Your task to perform on an android device: What's the weather going to be tomorrow? Image 0: 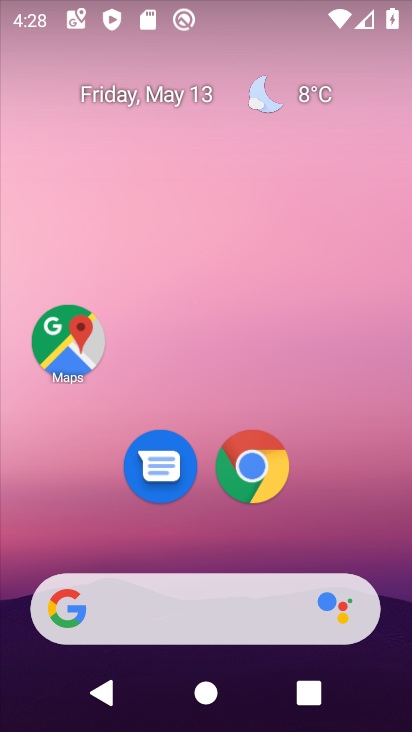
Step 0: click (299, 89)
Your task to perform on an android device: What's the weather going to be tomorrow? Image 1: 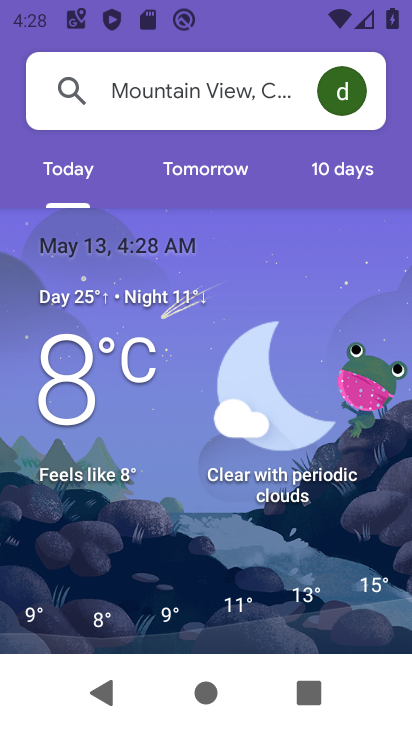
Step 1: click (202, 163)
Your task to perform on an android device: What's the weather going to be tomorrow? Image 2: 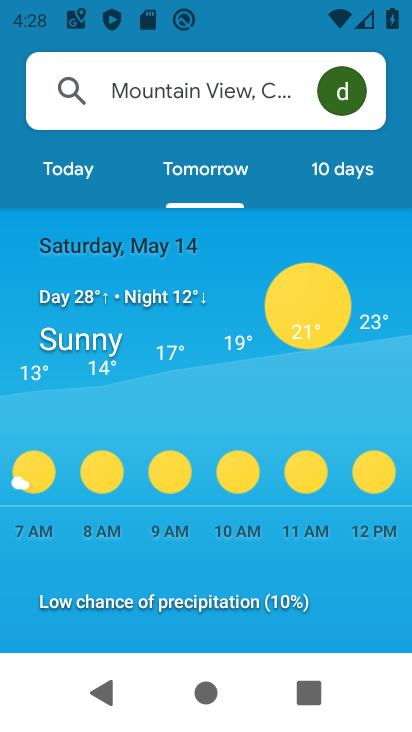
Step 2: task complete